Your task to perform on an android device: open app "Chime – Mobile Banking" (install if not already installed) and go to login screen Image 0: 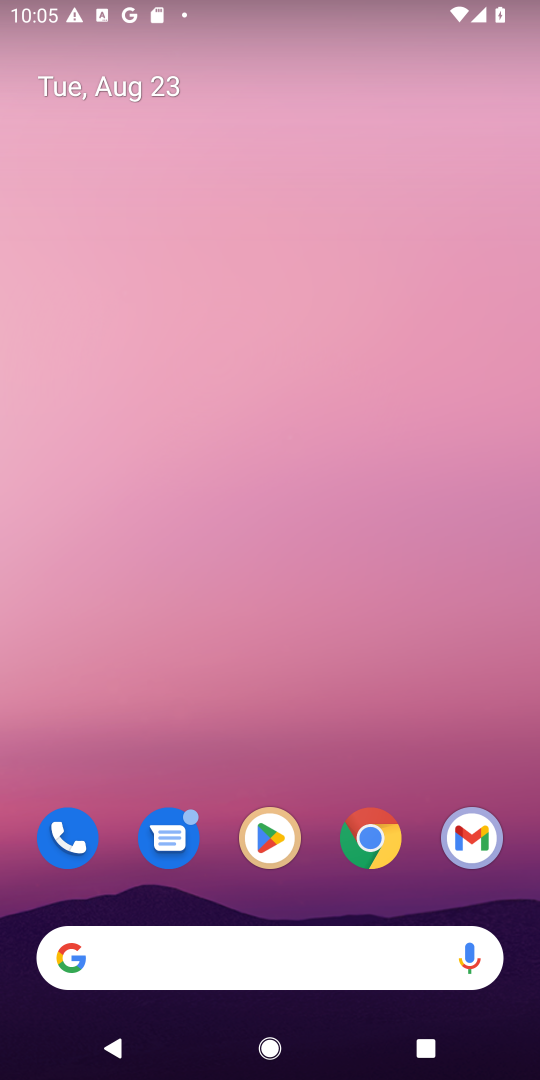
Step 0: click (275, 827)
Your task to perform on an android device: open app "Chime – Mobile Banking" (install if not already installed) and go to login screen Image 1: 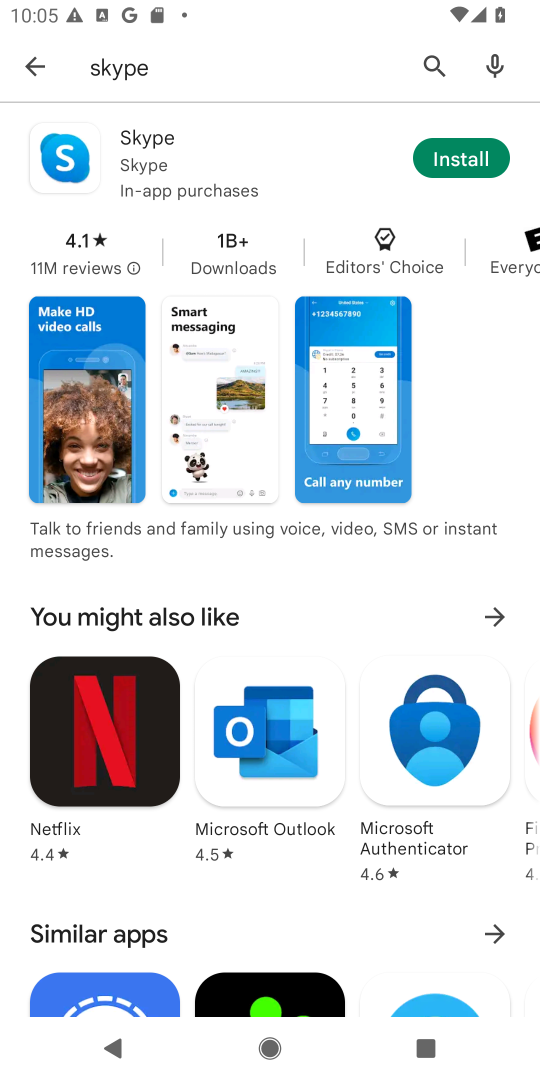
Step 1: click (431, 51)
Your task to perform on an android device: open app "Chime – Mobile Banking" (install if not already installed) and go to login screen Image 2: 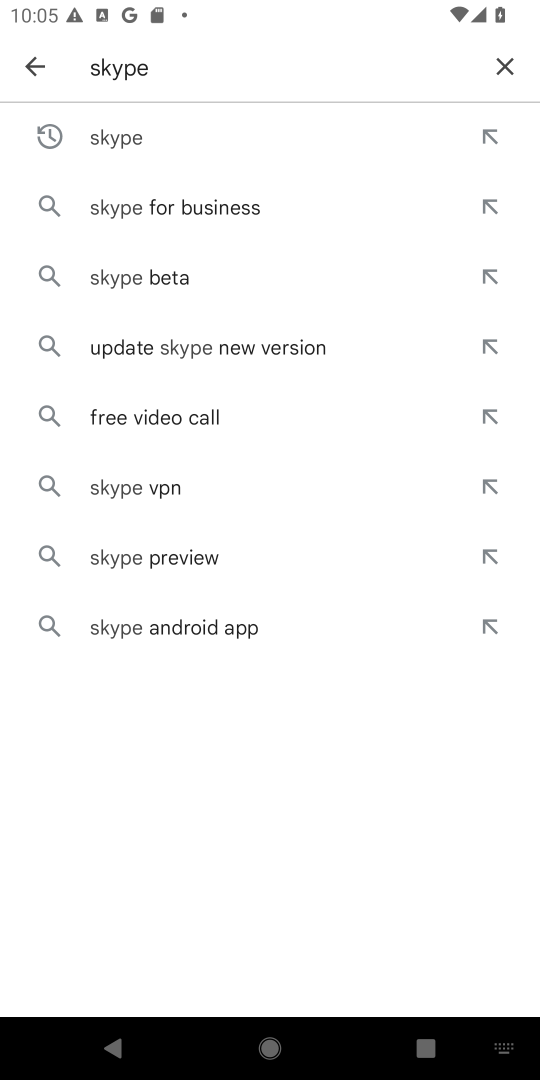
Step 2: click (499, 62)
Your task to perform on an android device: open app "Chime – Mobile Banking" (install if not already installed) and go to login screen Image 3: 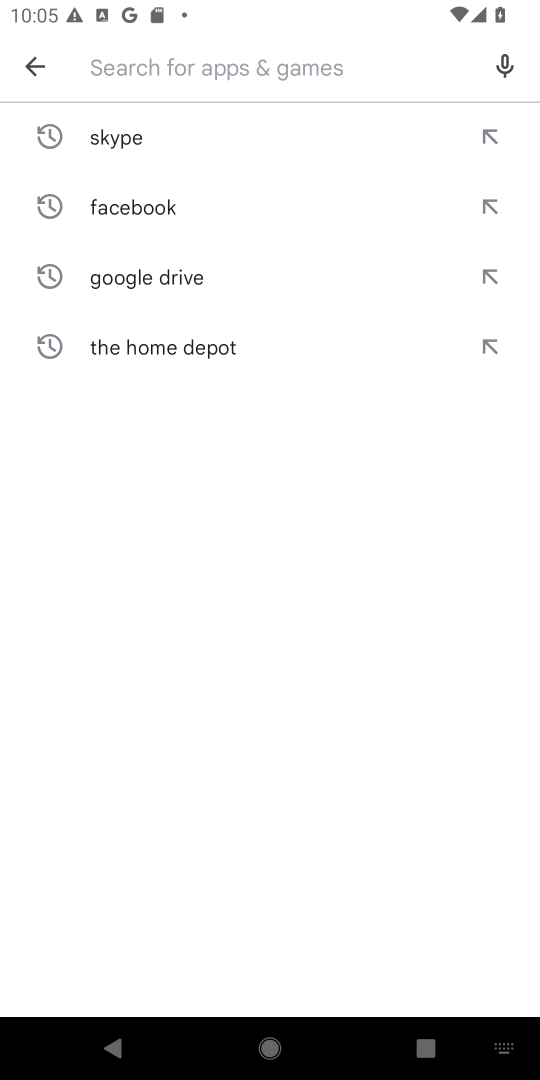
Step 3: type "Chime"
Your task to perform on an android device: open app "Chime – Mobile Banking" (install if not already installed) and go to login screen Image 4: 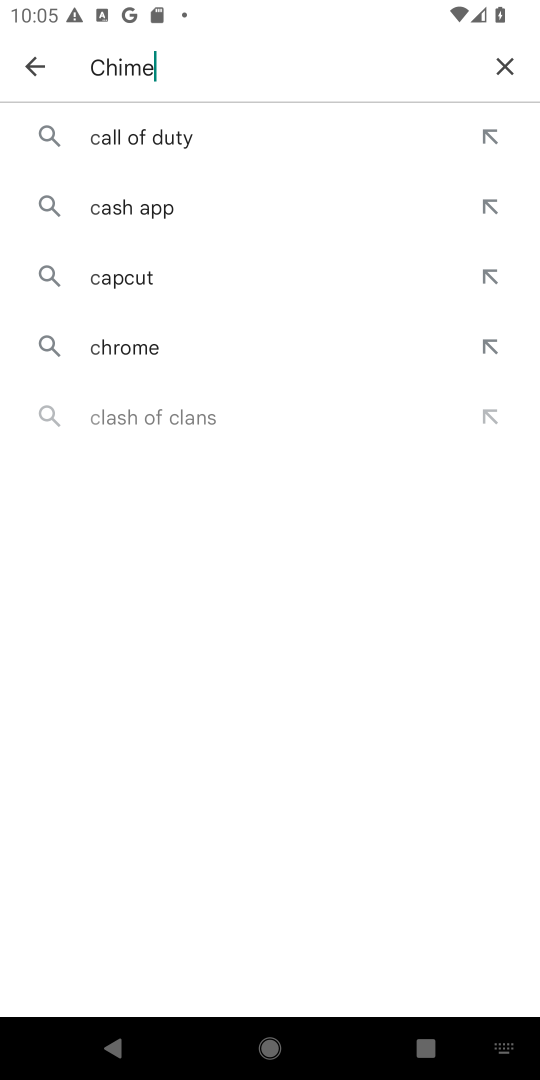
Step 4: type ""
Your task to perform on an android device: open app "Chime – Mobile Banking" (install if not already installed) and go to login screen Image 5: 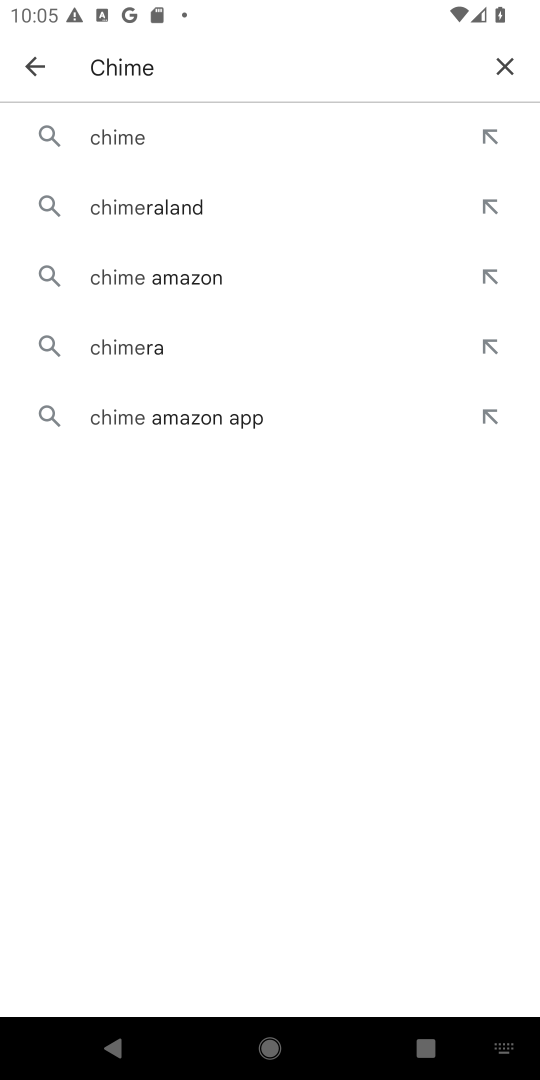
Step 5: click (154, 140)
Your task to perform on an android device: open app "Chime – Mobile Banking" (install if not already installed) and go to login screen Image 6: 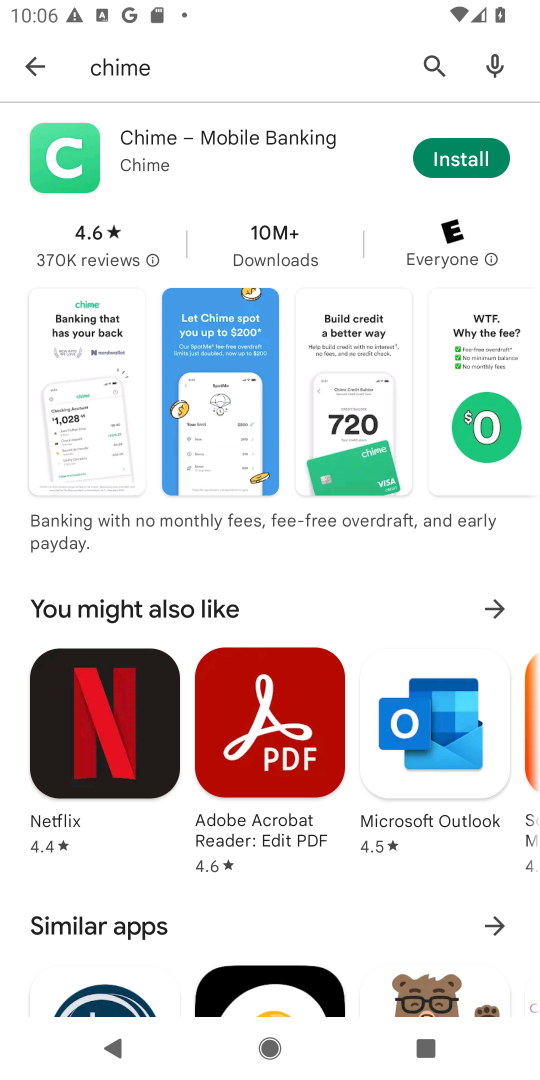
Step 6: click (462, 140)
Your task to perform on an android device: open app "Chime – Mobile Banking" (install if not already installed) and go to login screen Image 7: 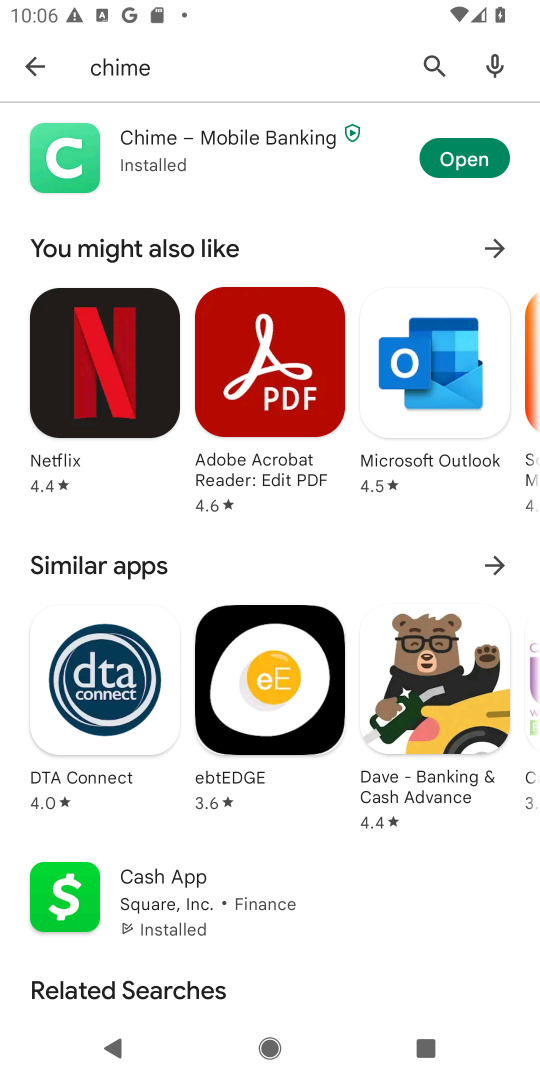
Step 7: click (478, 153)
Your task to perform on an android device: open app "Chime – Mobile Banking" (install if not already installed) and go to login screen Image 8: 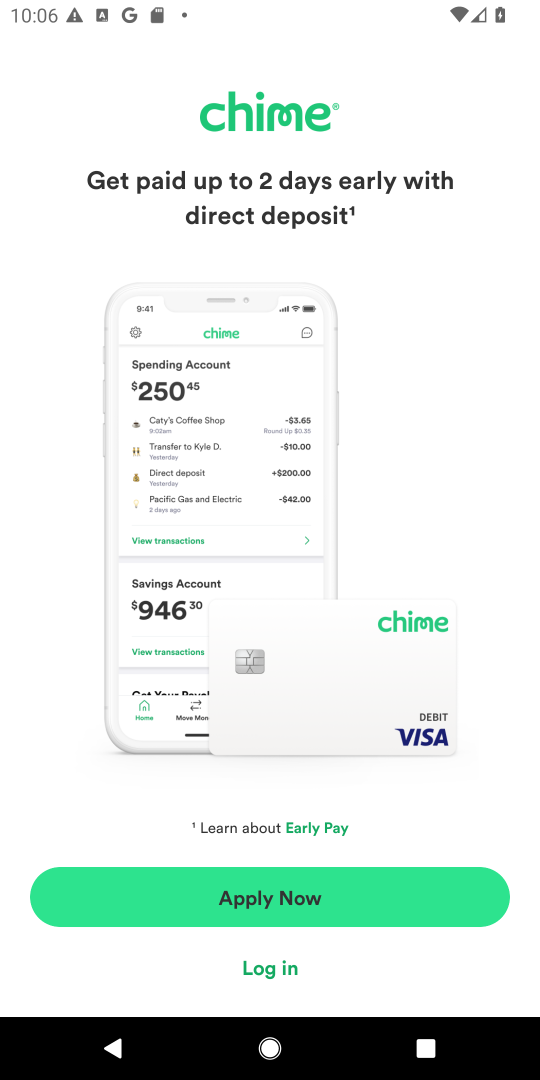
Step 8: task complete